Your task to perform on an android device: change the clock display to analog Image 0: 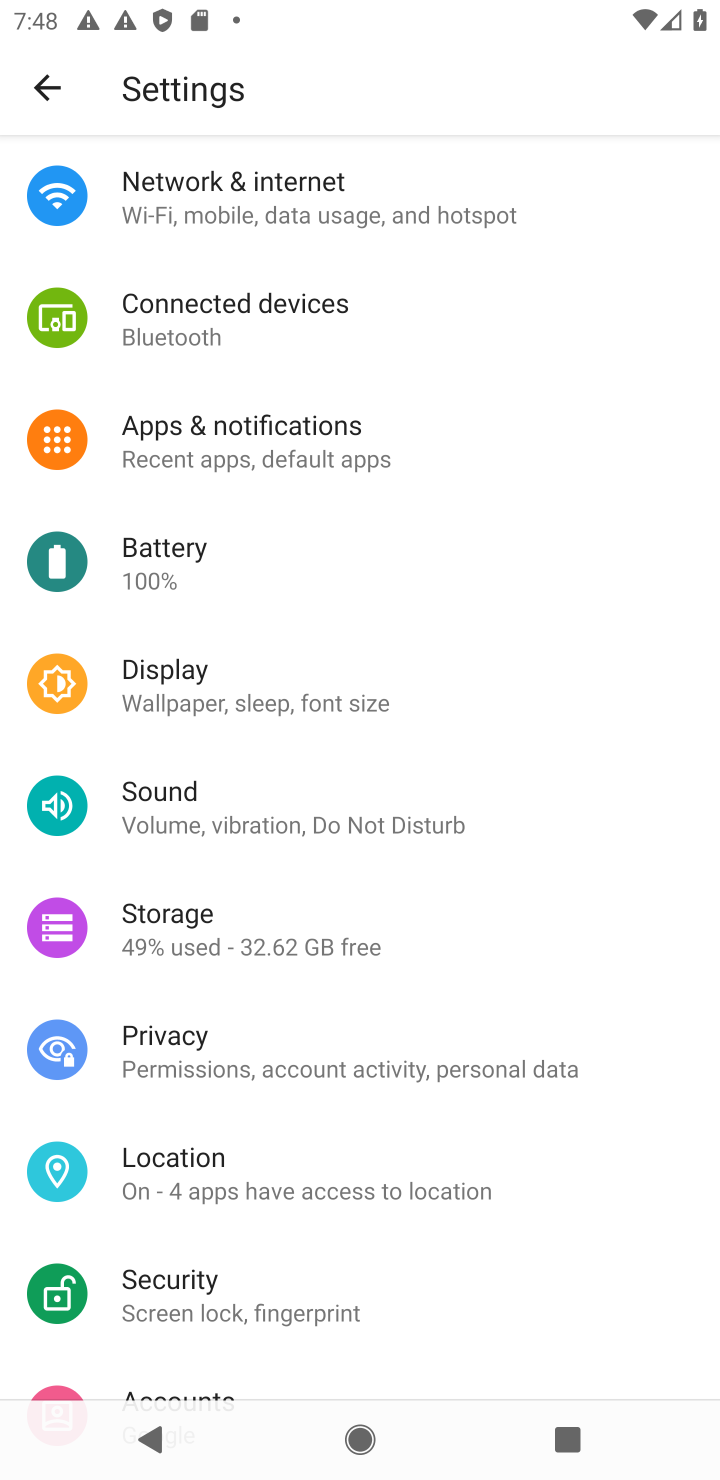
Step 0: press home button
Your task to perform on an android device: change the clock display to analog Image 1: 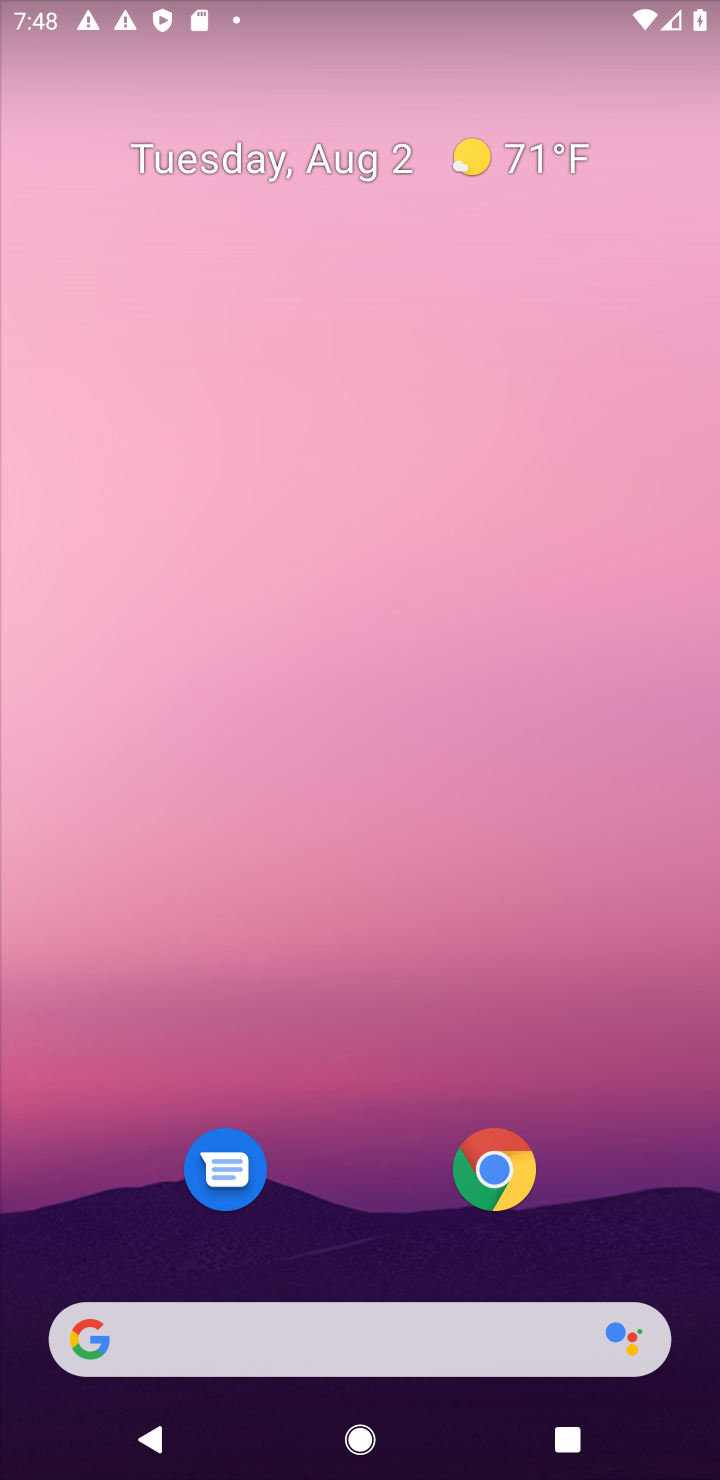
Step 1: drag from (414, 729) to (462, 126)
Your task to perform on an android device: change the clock display to analog Image 2: 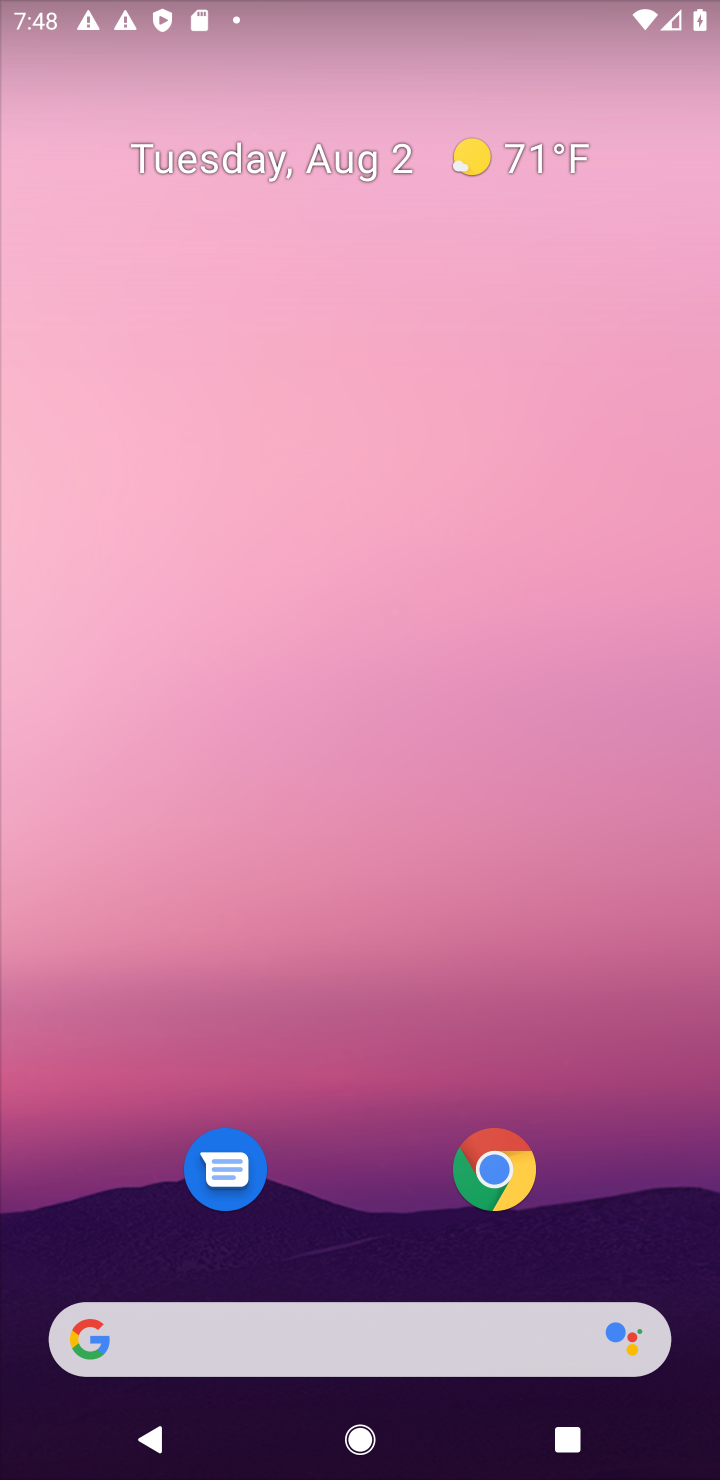
Step 2: drag from (327, 1099) to (455, 2)
Your task to perform on an android device: change the clock display to analog Image 3: 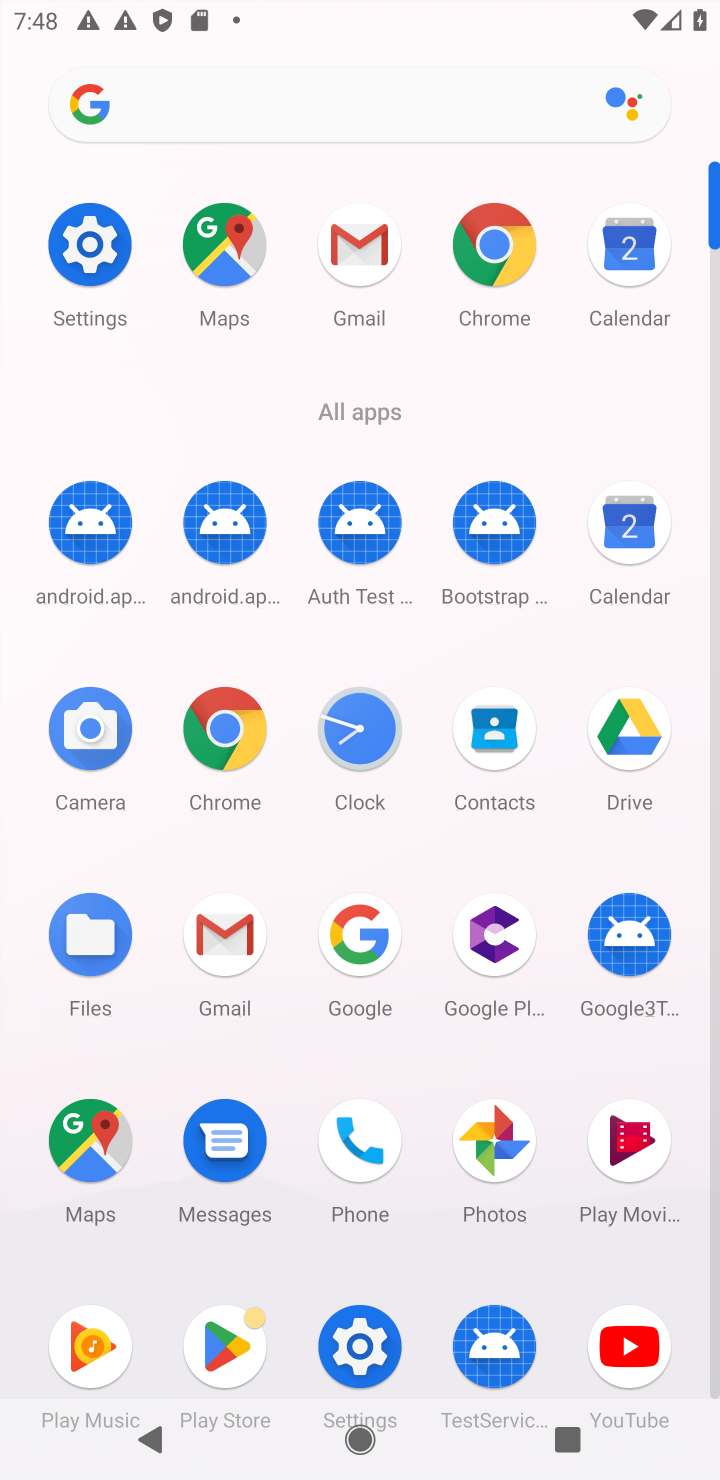
Step 3: click (371, 740)
Your task to perform on an android device: change the clock display to analog Image 4: 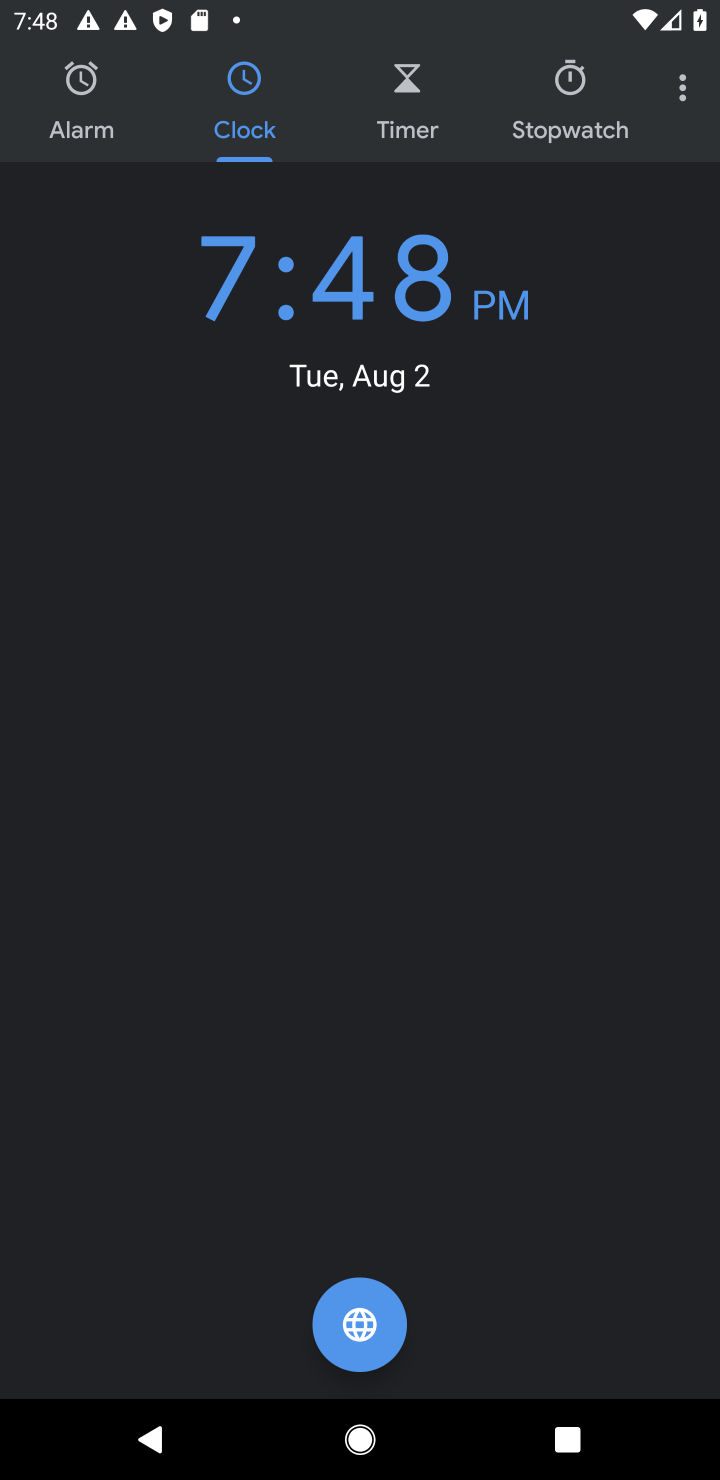
Step 4: click (681, 96)
Your task to perform on an android device: change the clock display to analog Image 5: 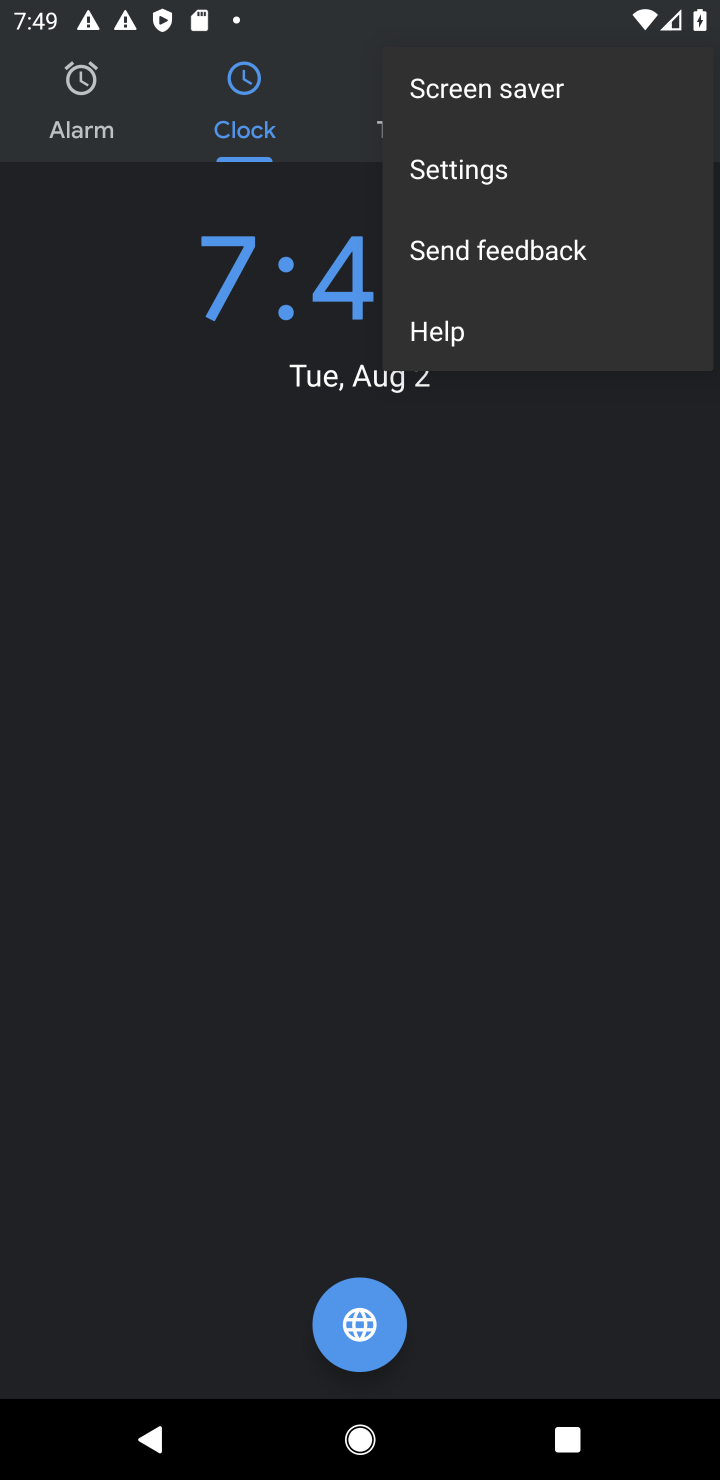
Step 5: click (590, 174)
Your task to perform on an android device: change the clock display to analog Image 6: 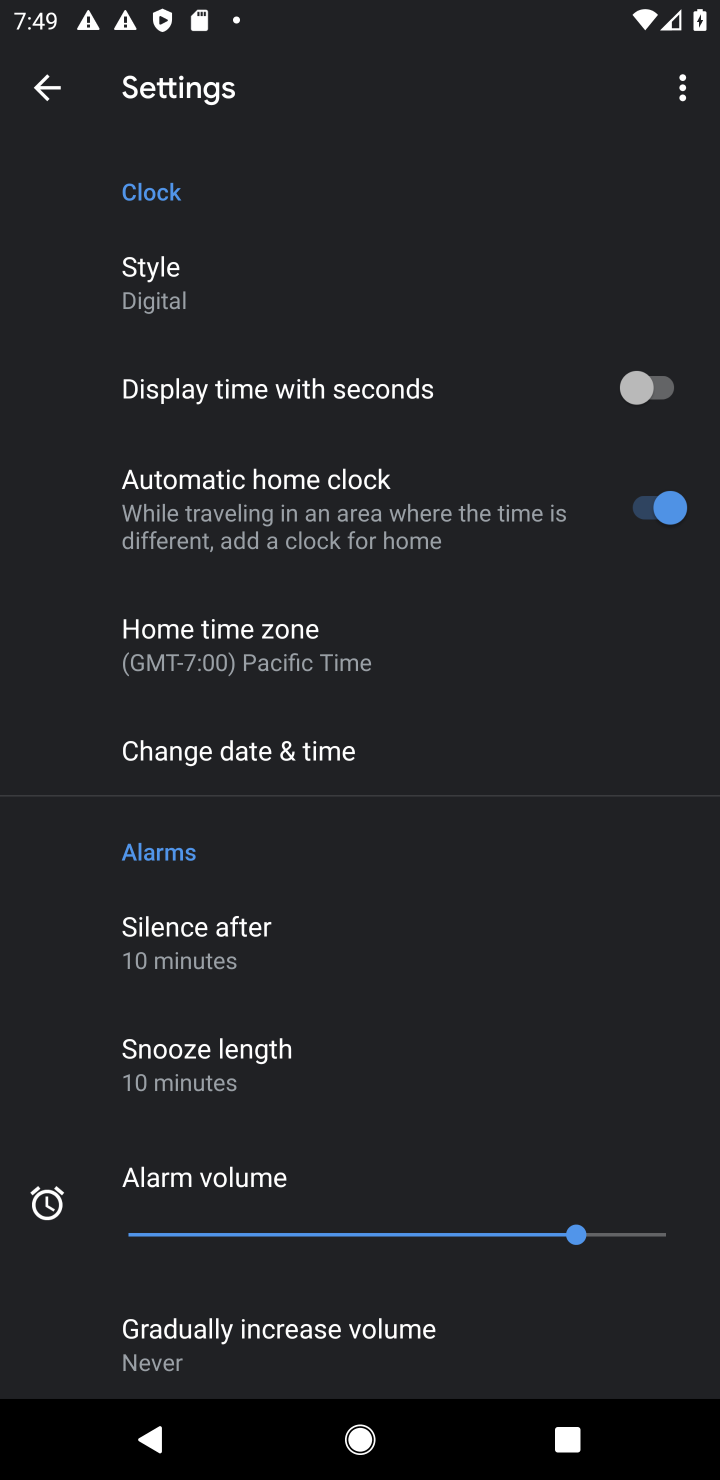
Step 6: click (184, 291)
Your task to perform on an android device: change the clock display to analog Image 7: 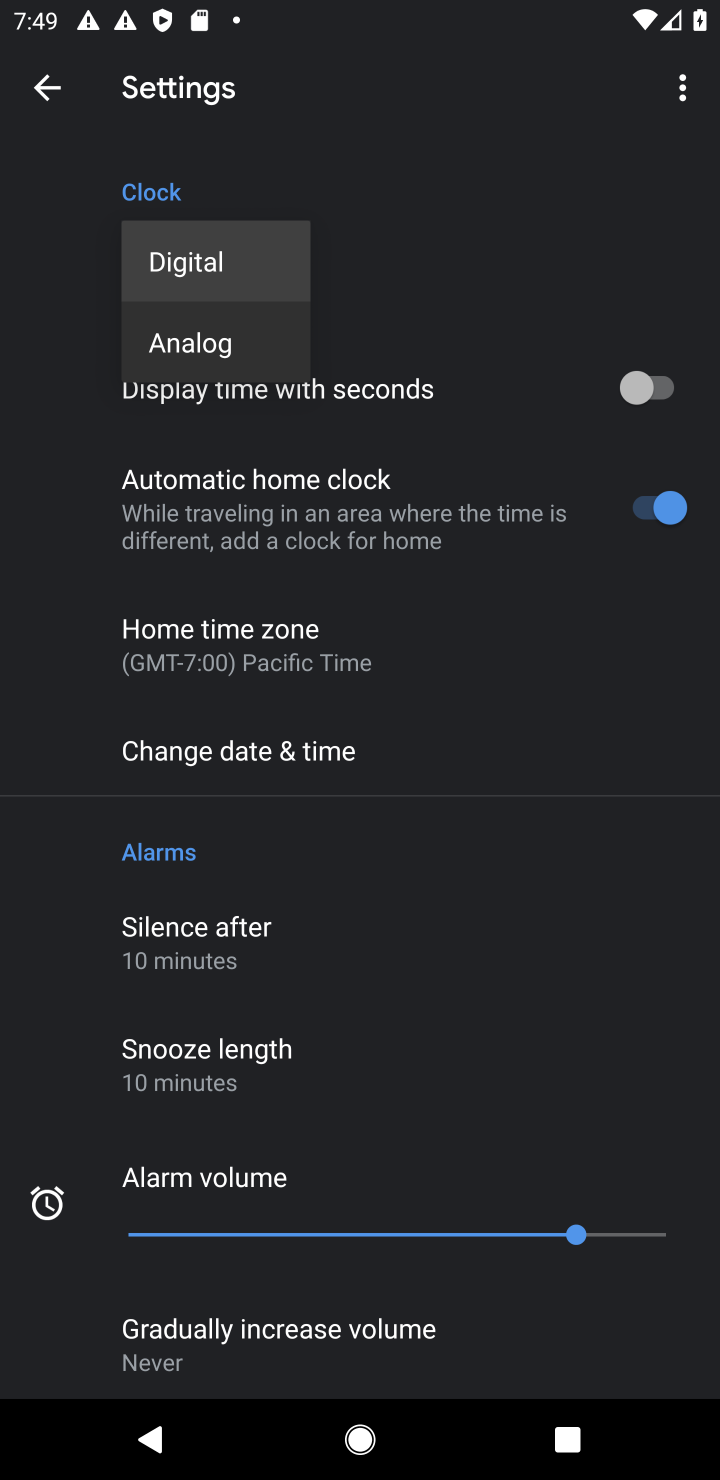
Step 7: click (197, 343)
Your task to perform on an android device: change the clock display to analog Image 8: 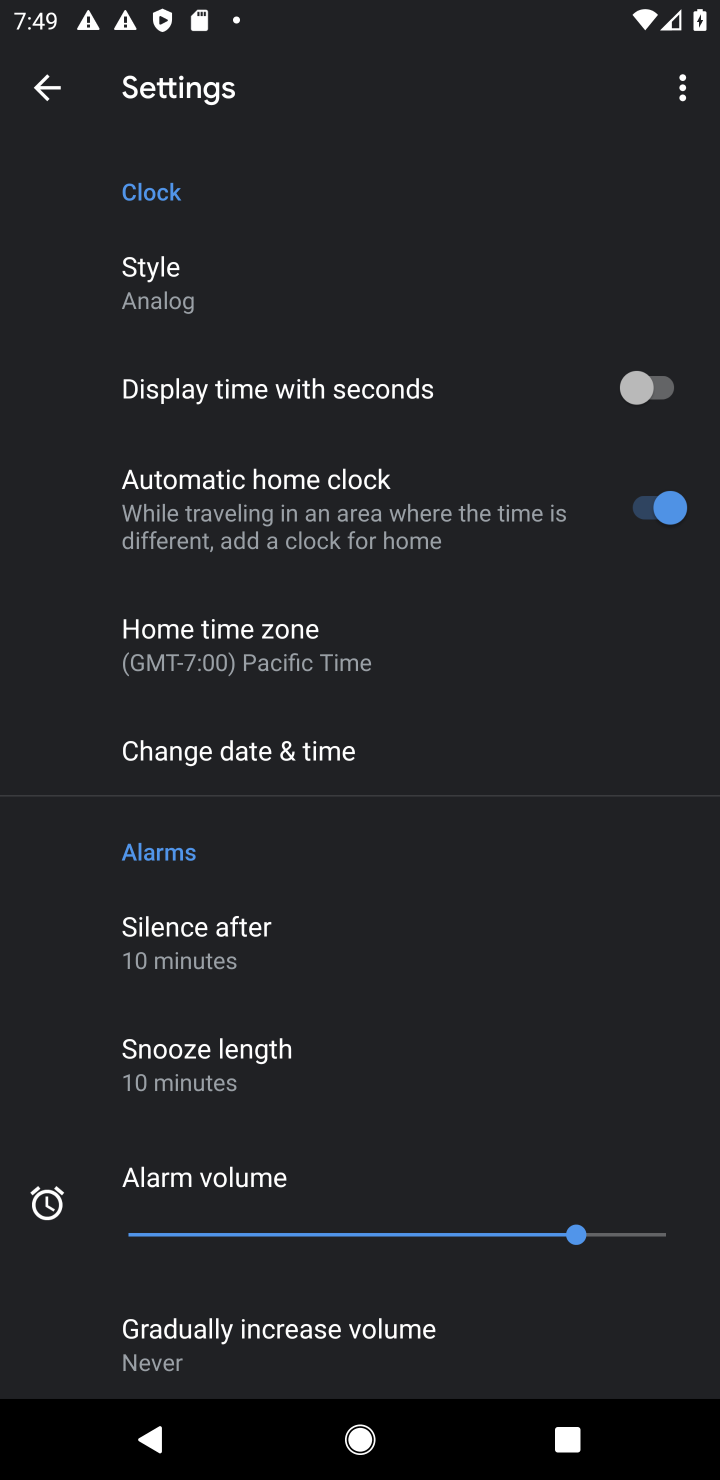
Step 8: click (56, 80)
Your task to perform on an android device: change the clock display to analog Image 9: 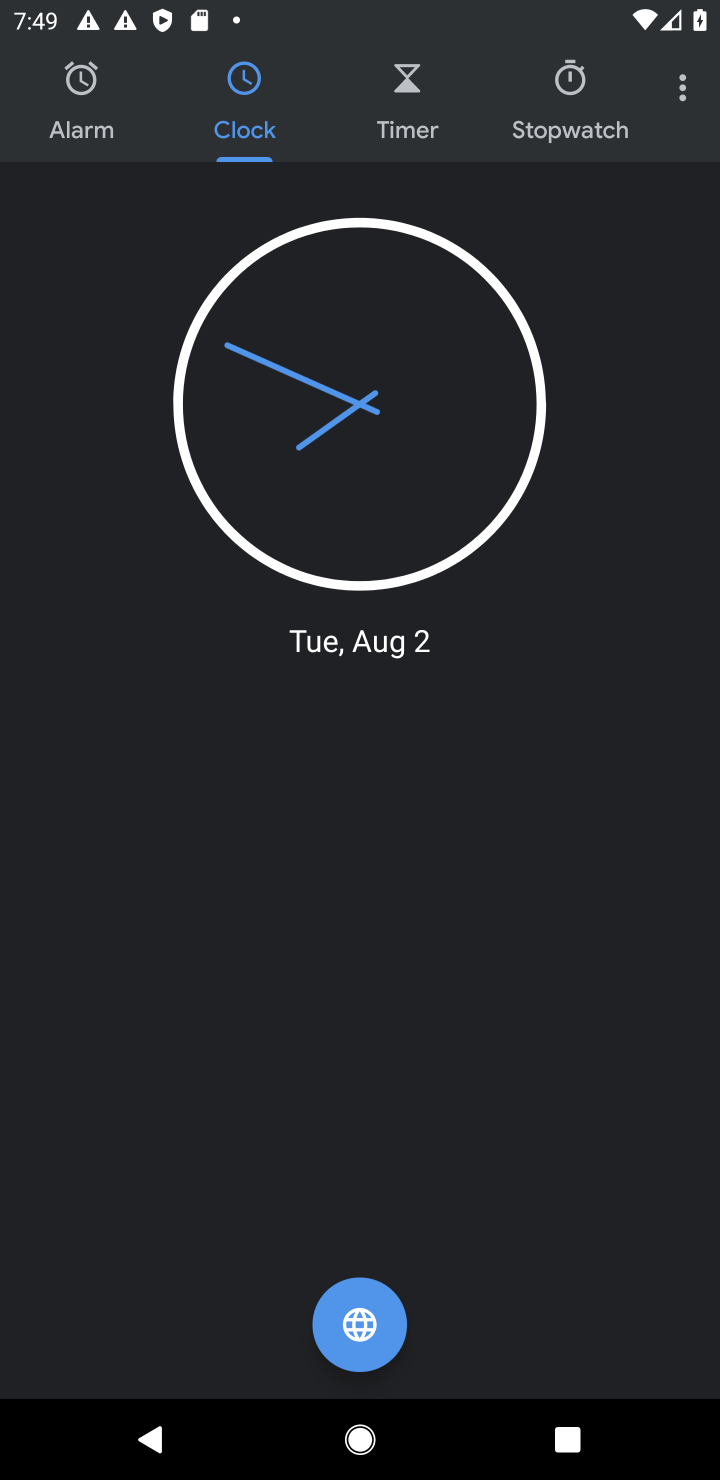
Step 9: task complete